Your task to perform on an android device: Empty the shopping cart on target.com. Search for beats solo 3 on target.com, select the first entry, and add it to the cart. Image 0: 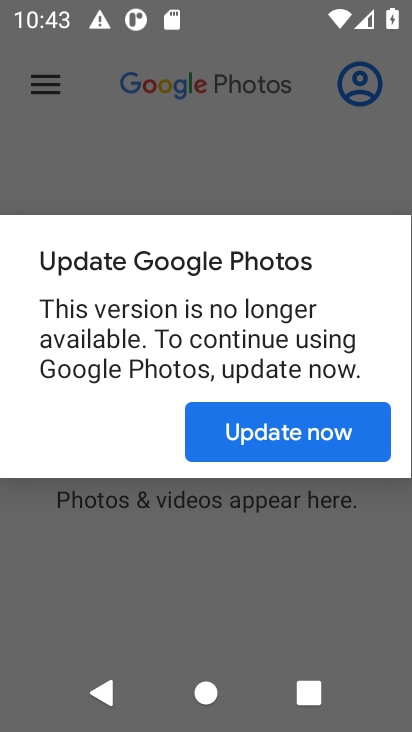
Step 0: task complete